Your task to perform on an android device: Open the Play Movies app and select the watchlist tab. Image 0: 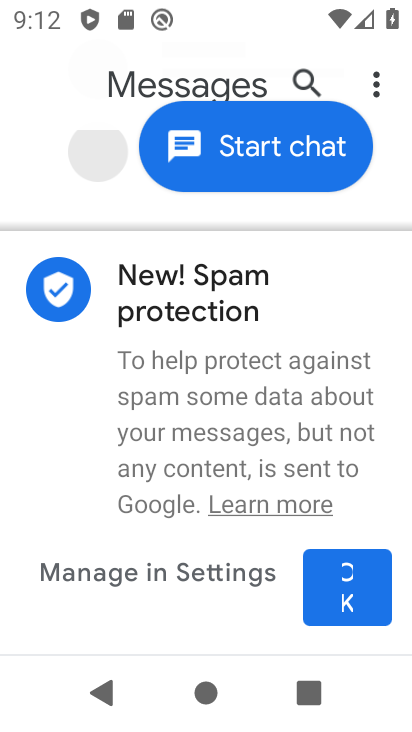
Step 0: press home button
Your task to perform on an android device: Open the Play Movies app and select the watchlist tab. Image 1: 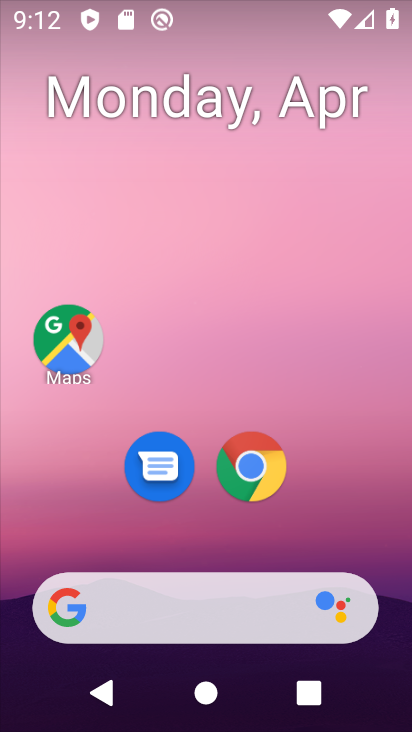
Step 1: drag from (162, 531) to (255, 14)
Your task to perform on an android device: Open the Play Movies app and select the watchlist tab. Image 2: 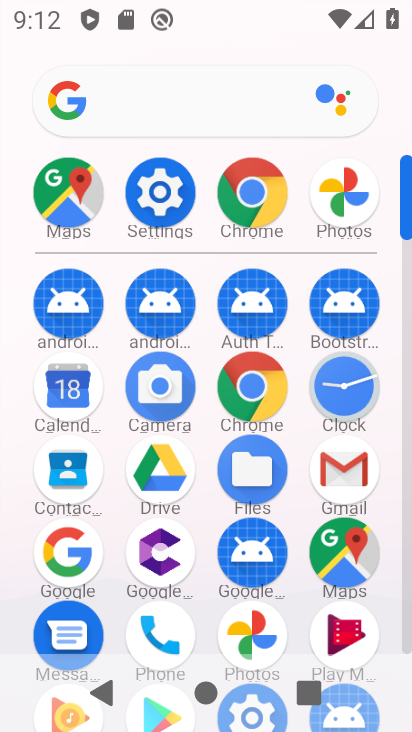
Step 2: drag from (204, 590) to (210, 399)
Your task to perform on an android device: Open the Play Movies app and select the watchlist tab. Image 3: 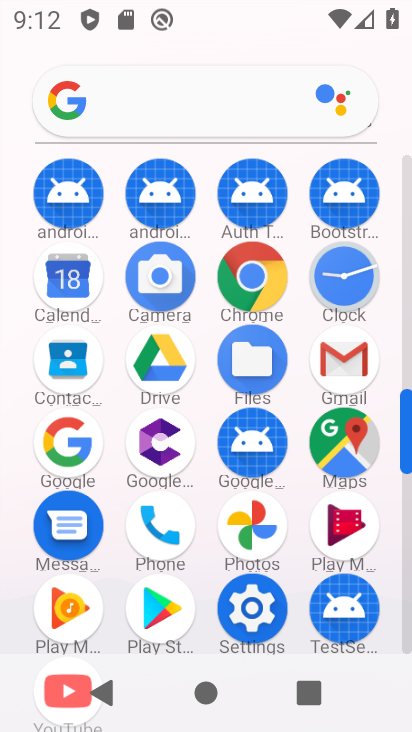
Step 3: click (353, 527)
Your task to perform on an android device: Open the Play Movies app and select the watchlist tab. Image 4: 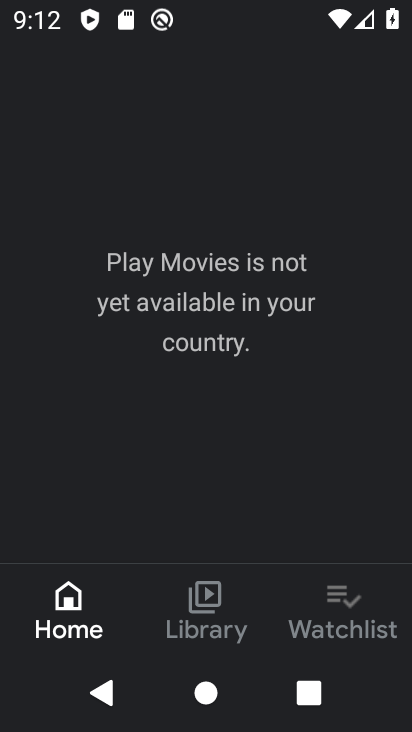
Step 4: click (335, 600)
Your task to perform on an android device: Open the Play Movies app and select the watchlist tab. Image 5: 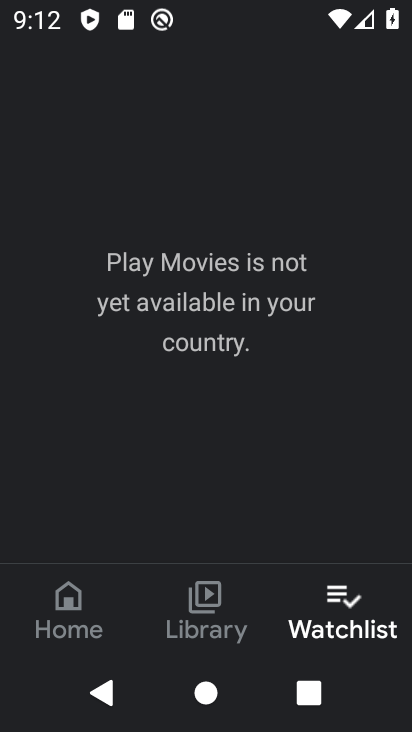
Step 5: task complete